Your task to perform on an android device: Show me popular games on the Play Store Image 0: 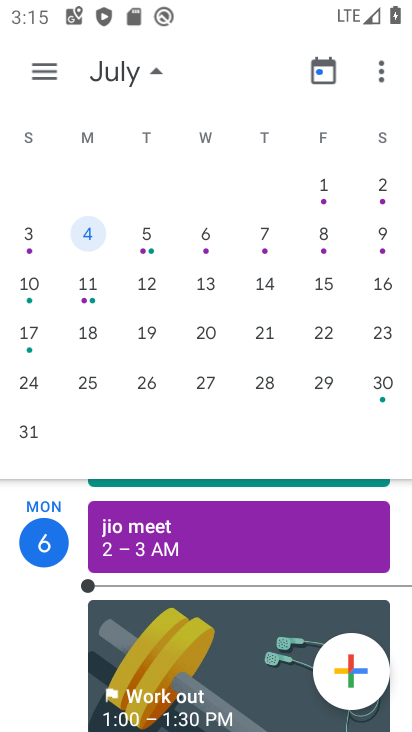
Step 0: press home button
Your task to perform on an android device: Show me popular games on the Play Store Image 1: 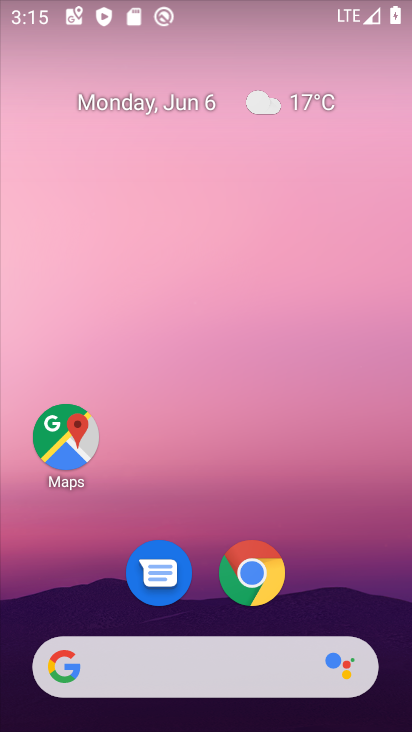
Step 1: drag from (357, 586) to (360, 208)
Your task to perform on an android device: Show me popular games on the Play Store Image 2: 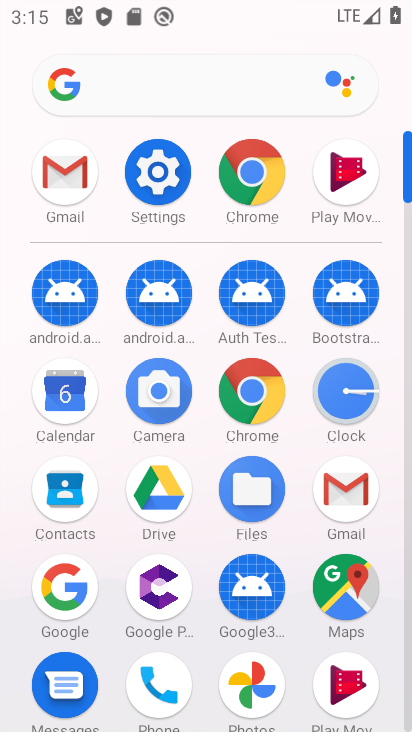
Step 2: drag from (394, 583) to (394, 331)
Your task to perform on an android device: Show me popular games on the Play Store Image 3: 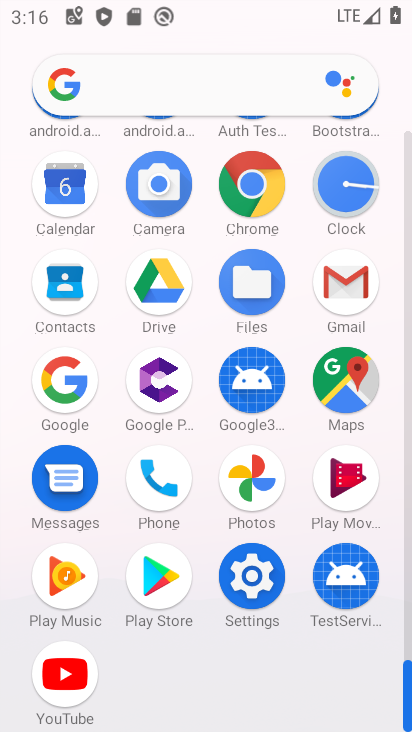
Step 3: click (153, 590)
Your task to perform on an android device: Show me popular games on the Play Store Image 4: 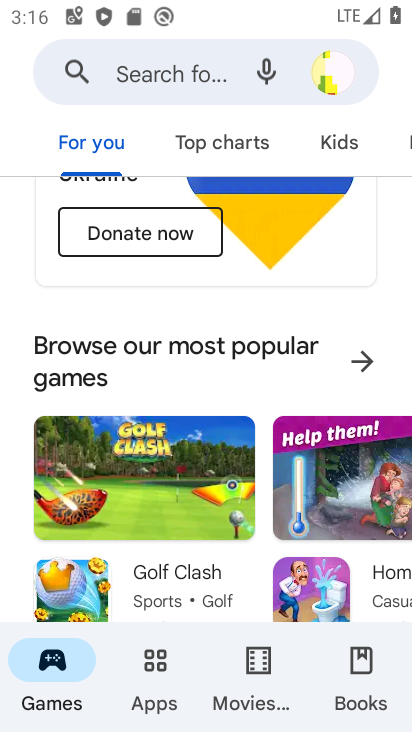
Step 4: task complete